Your task to perform on an android device: empty trash in google photos Image 0: 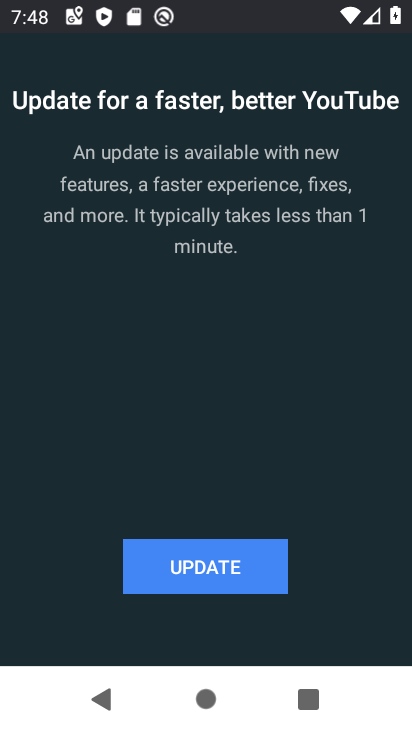
Step 0: press home button
Your task to perform on an android device: empty trash in google photos Image 1: 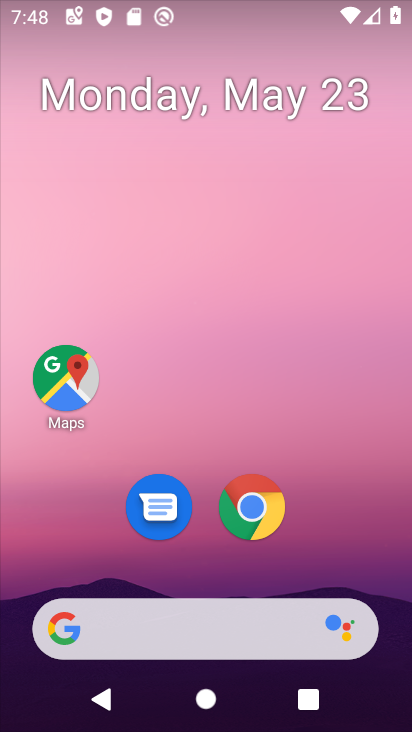
Step 1: drag from (383, 537) to (318, 8)
Your task to perform on an android device: empty trash in google photos Image 2: 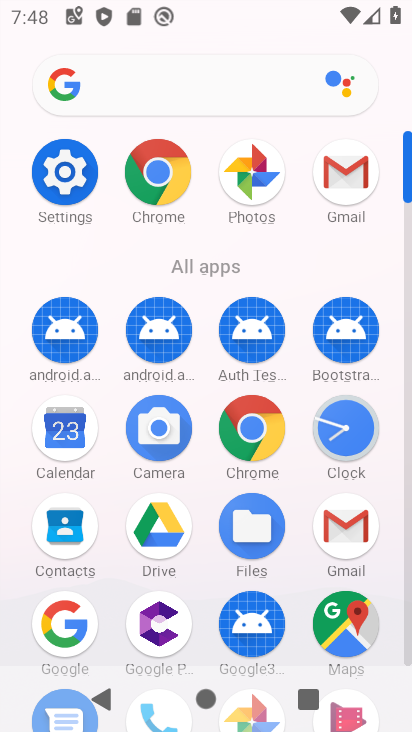
Step 2: drag from (210, 637) to (185, 310)
Your task to perform on an android device: empty trash in google photos Image 3: 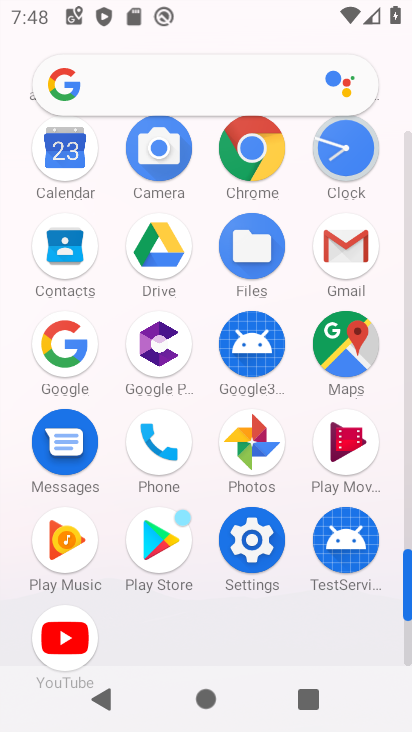
Step 3: click (249, 443)
Your task to perform on an android device: empty trash in google photos Image 4: 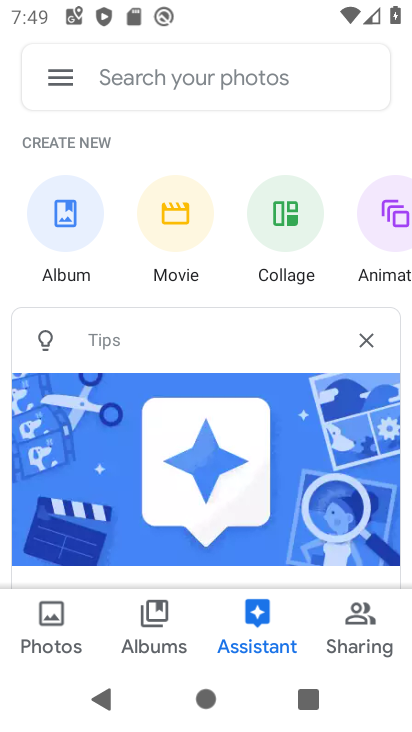
Step 4: click (68, 71)
Your task to perform on an android device: empty trash in google photos Image 5: 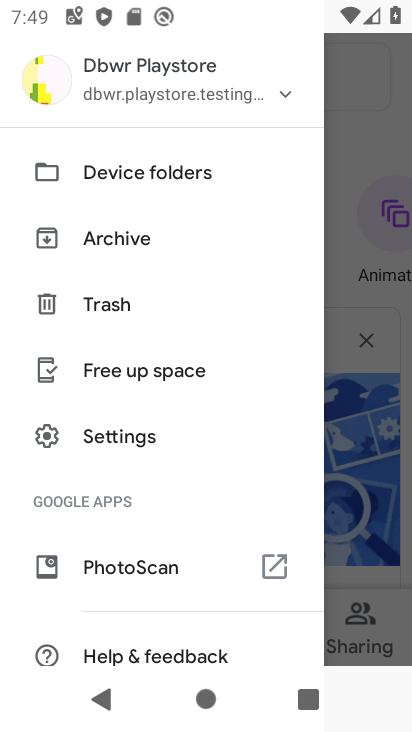
Step 5: click (146, 292)
Your task to perform on an android device: empty trash in google photos Image 6: 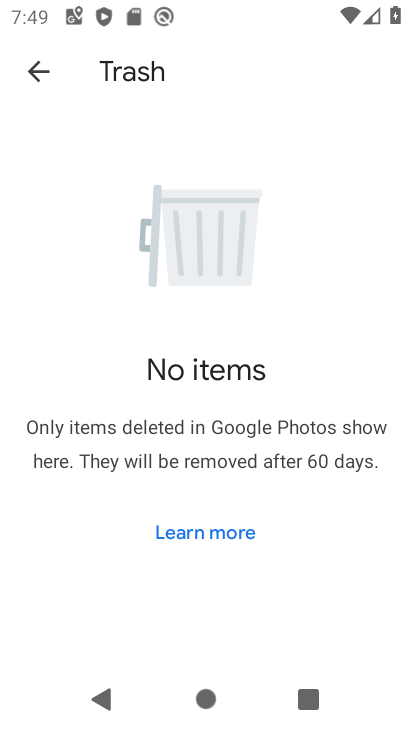
Step 6: task complete